Your task to perform on an android device: delete location history Image 0: 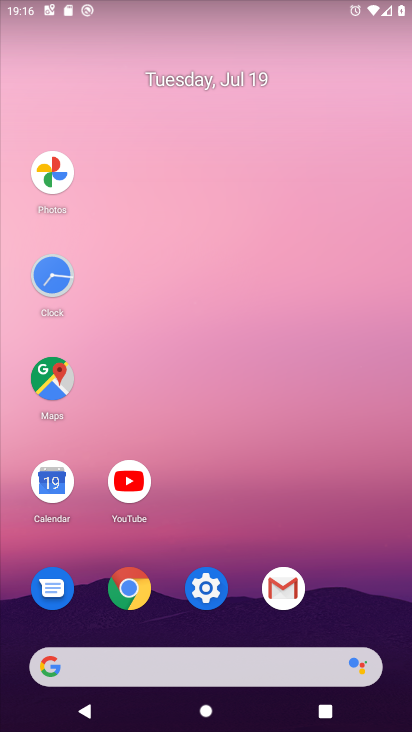
Step 0: click (50, 376)
Your task to perform on an android device: delete location history Image 1: 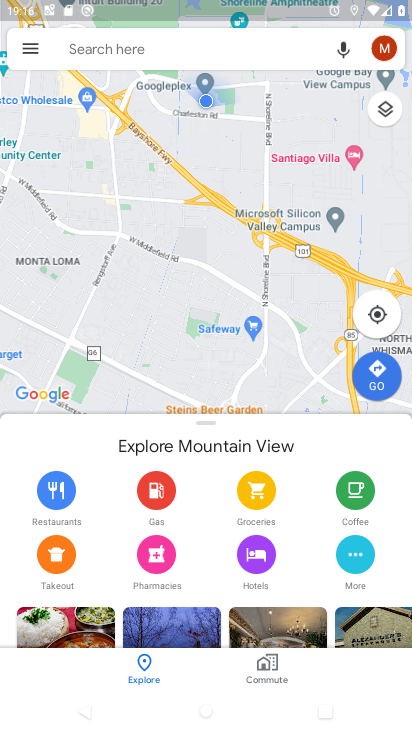
Step 1: click (28, 50)
Your task to perform on an android device: delete location history Image 2: 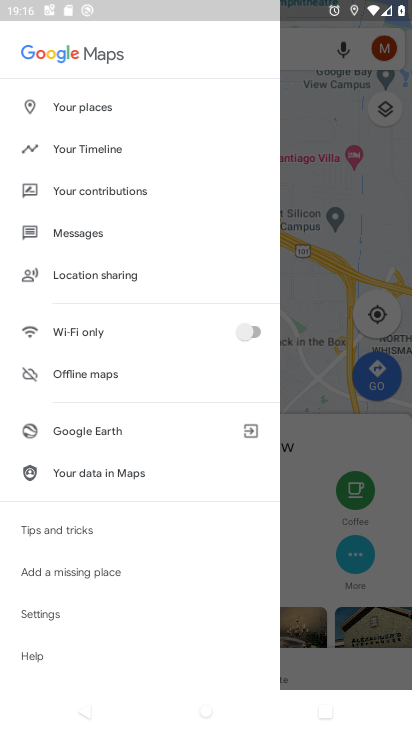
Step 2: click (85, 146)
Your task to perform on an android device: delete location history Image 3: 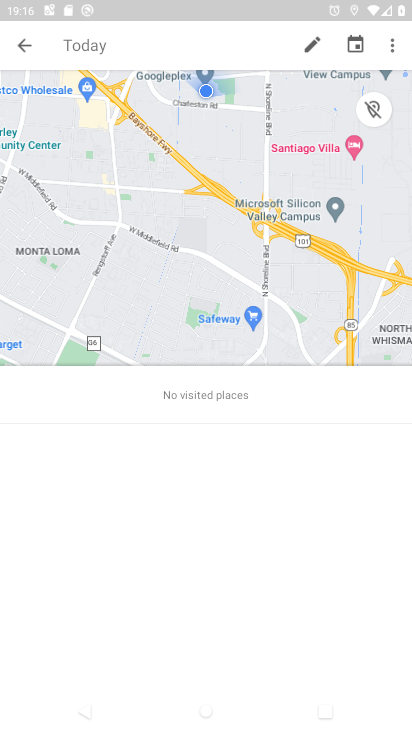
Step 3: click (389, 46)
Your task to perform on an android device: delete location history Image 4: 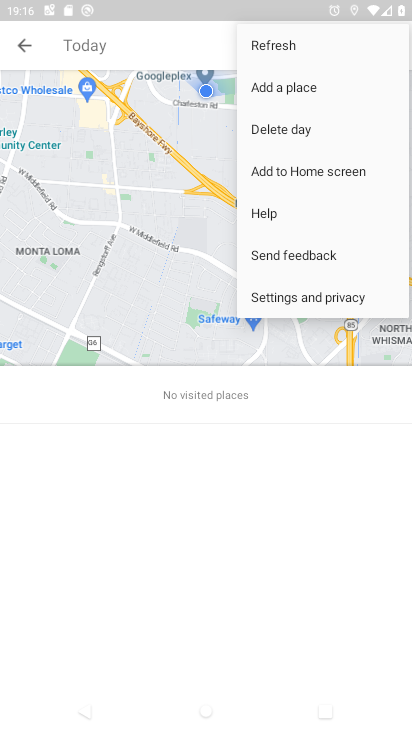
Step 4: click (305, 295)
Your task to perform on an android device: delete location history Image 5: 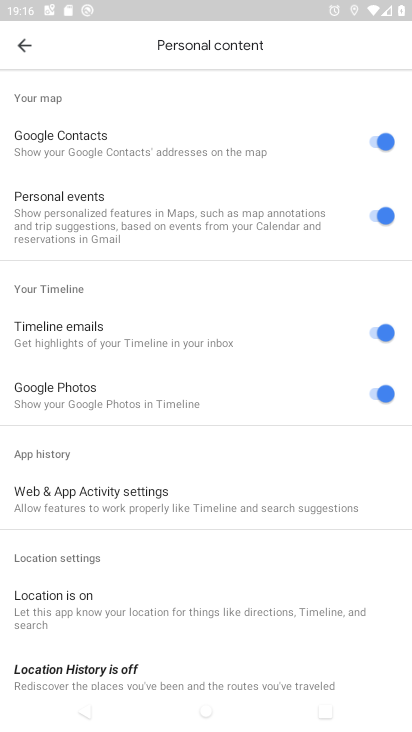
Step 5: drag from (205, 626) to (183, 445)
Your task to perform on an android device: delete location history Image 6: 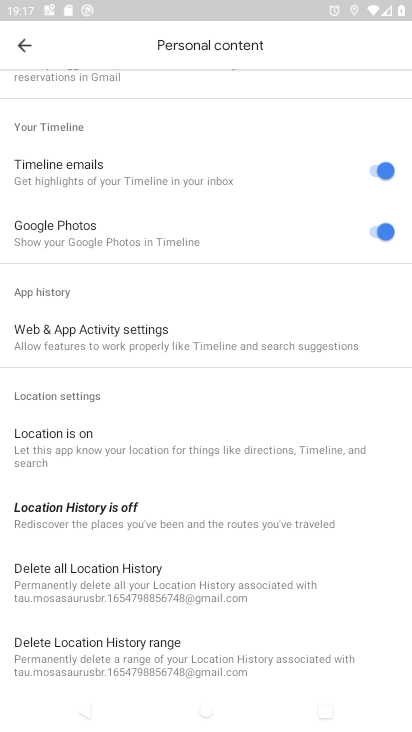
Step 6: click (77, 567)
Your task to perform on an android device: delete location history Image 7: 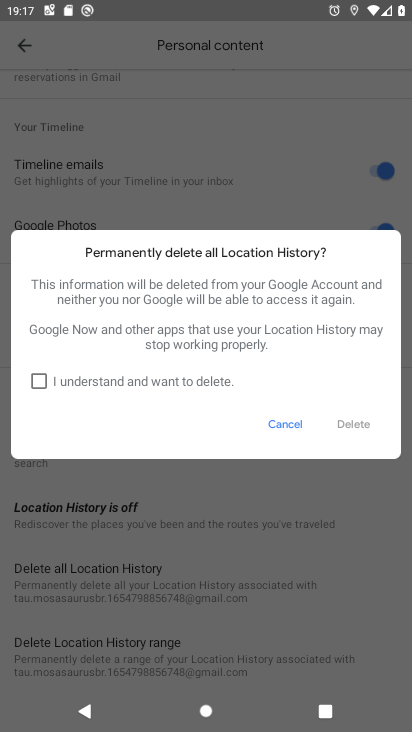
Step 7: click (42, 382)
Your task to perform on an android device: delete location history Image 8: 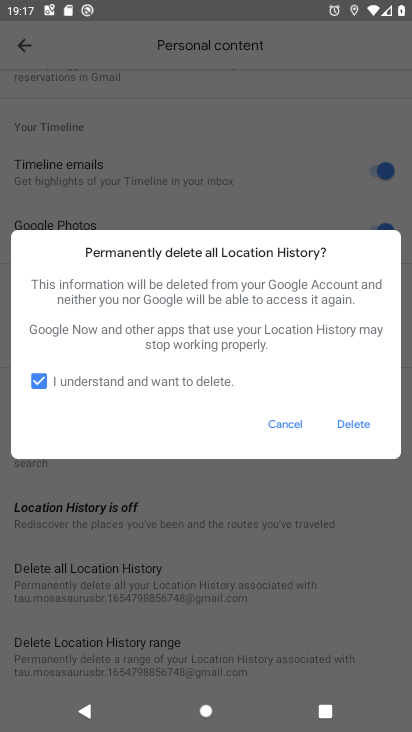
Step 8: click (356, 421)
Your task to perform on an android device: delete location history Image 9: 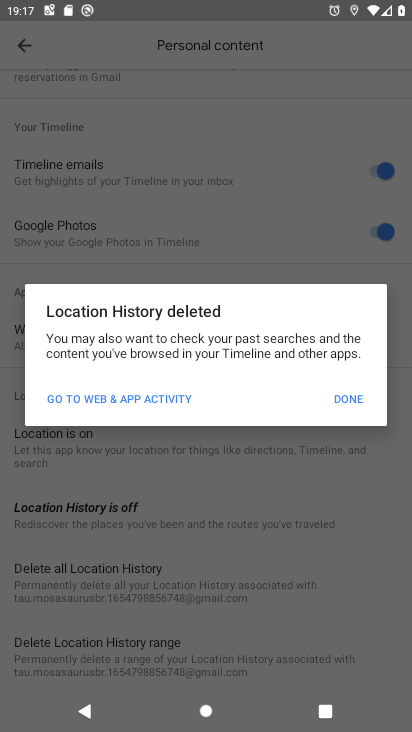
Step 9: click (346, 396)
Your task to perform on an android device: delete location history Image 10: 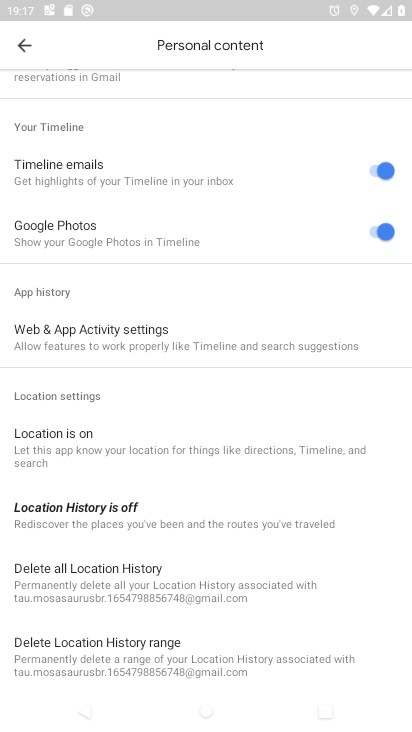
Step 10: task complete